Your task to perform on an android device: Go to Google Image 0: 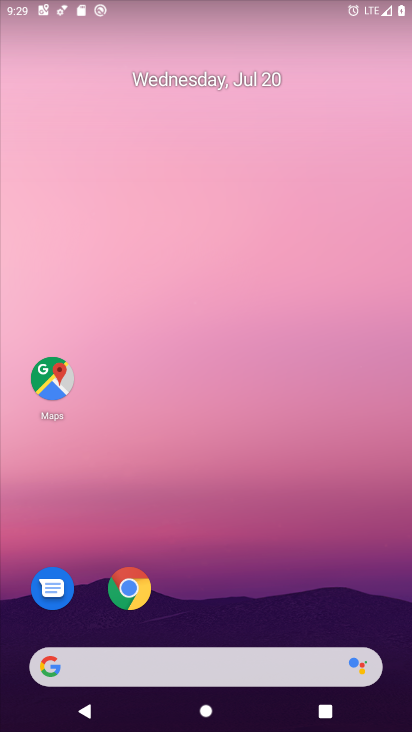
Step 0: press home button
Your task to perform on an android device: Go to Google Image 1: 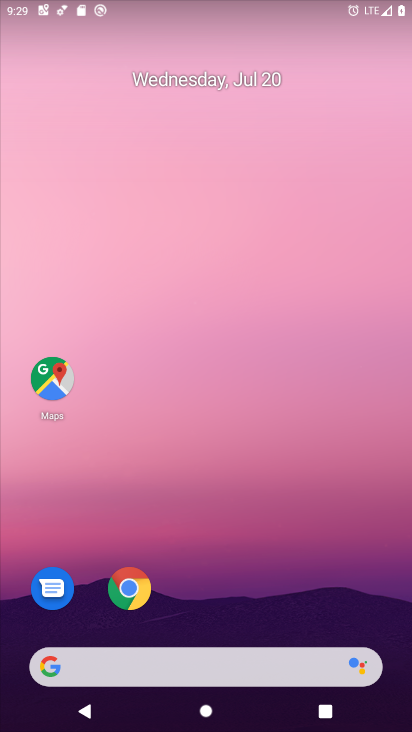
Step 1: drag from (194, 614) to (251, 188)
Your task to perform on an android device: Go to Google Image 2: 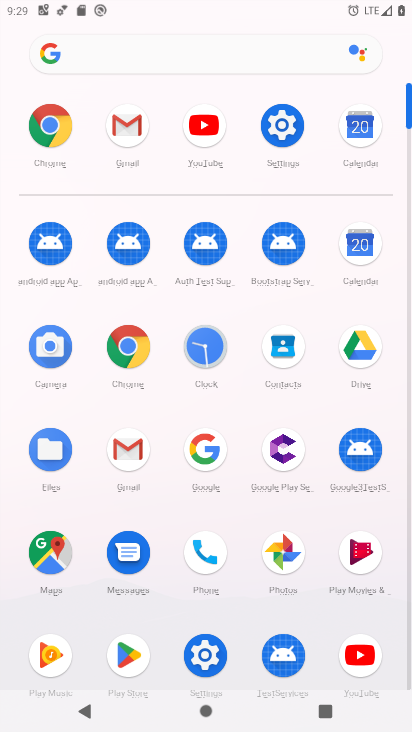
Step 2: click (202, 449)
Your task to perform on an android device: Go to Google Image 3: 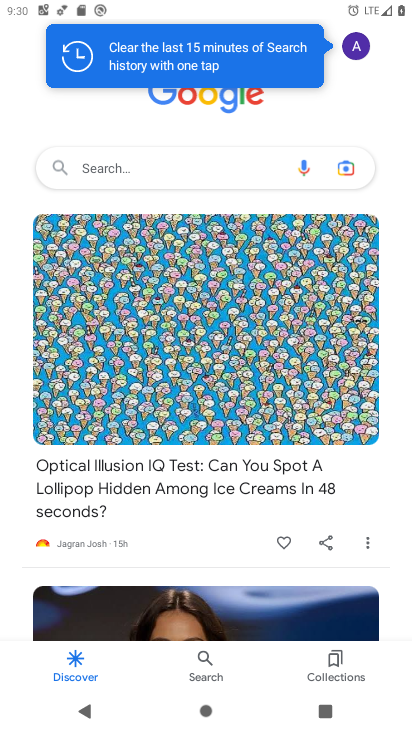
Step 3: task complete